Your task to perform on an android device: visit the assistant section in the google photos Image 0: 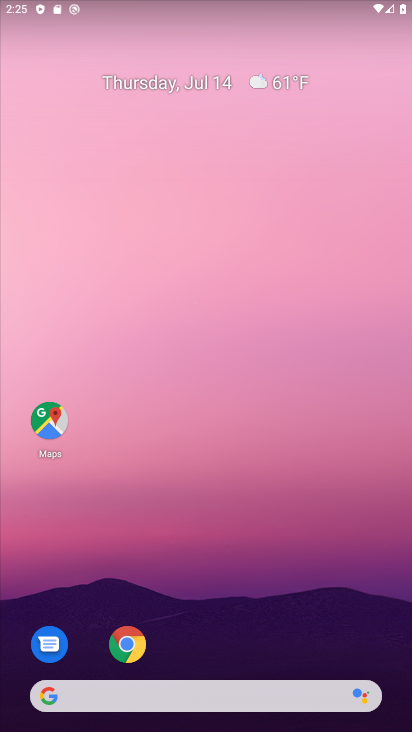
Step 0: drag from (381, 622) to (409, 144)
Your task to perform on an android device: visit the assistant section in the google photos Image 1: 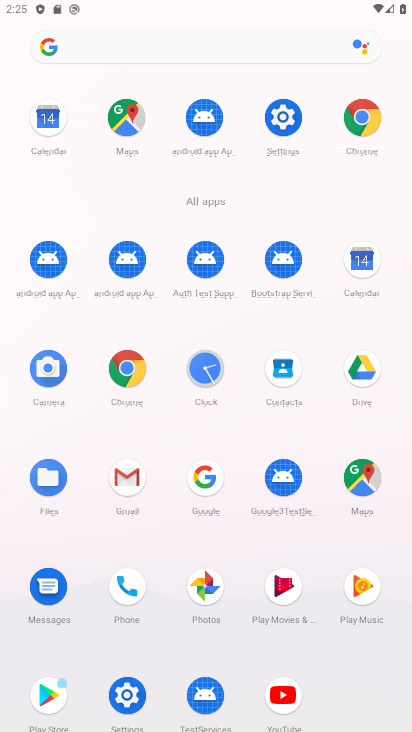
Step 1: click (204, 578)
Your task to perform on an android device: visit the assistant section in the google photos Image 2: 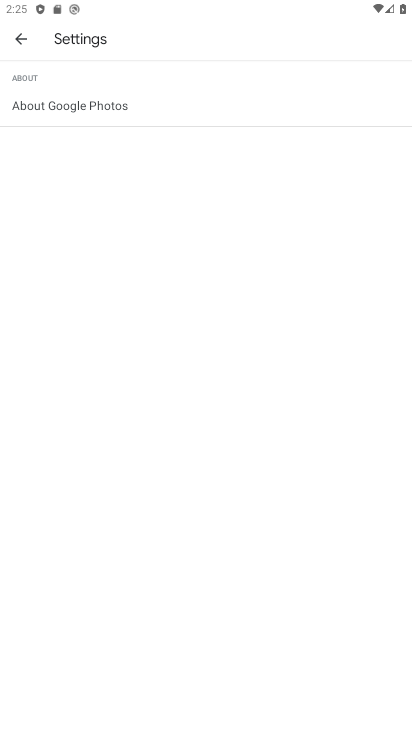
Step 2: click (17, 45)
Your task to perform on an android device: visit the assistant section in the google photos Image 3: 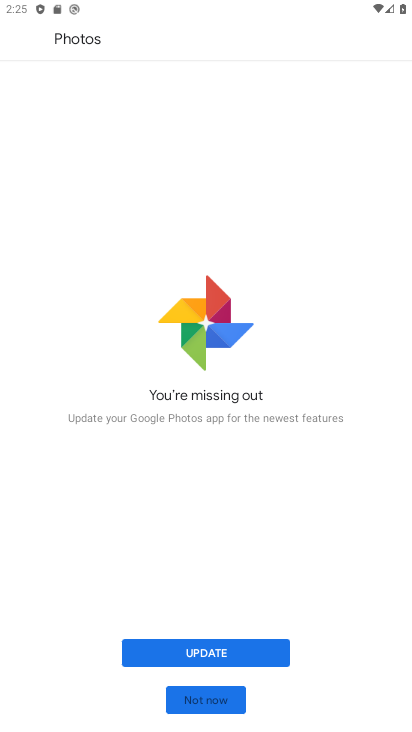
Step 3: click (226, 694)
Your task to perform on an android device: visit the assistant section in the google photos Image 4: 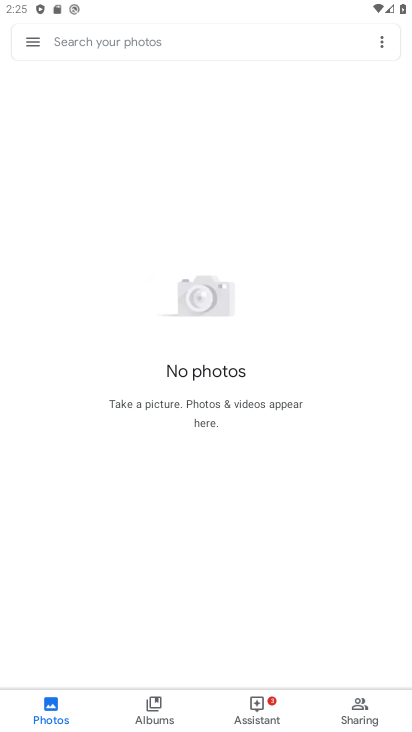
Step 4: click (266, 709)
Your task to perform on an android device: visit the assistant section in the google photos Image 5: 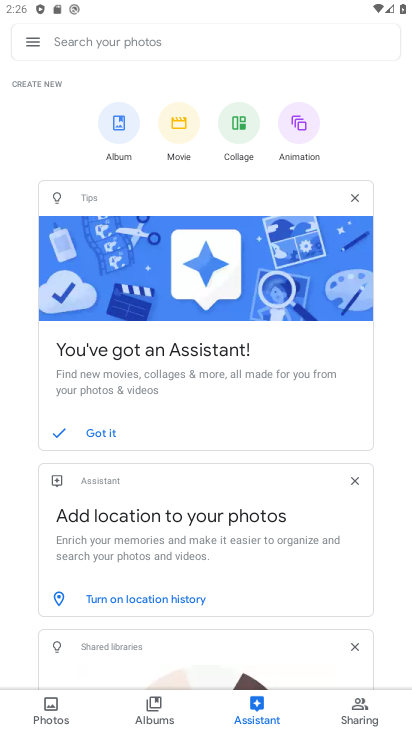
Step 5: task complete